Your task to perform on an android device: What's on my calendar today? Image 0: 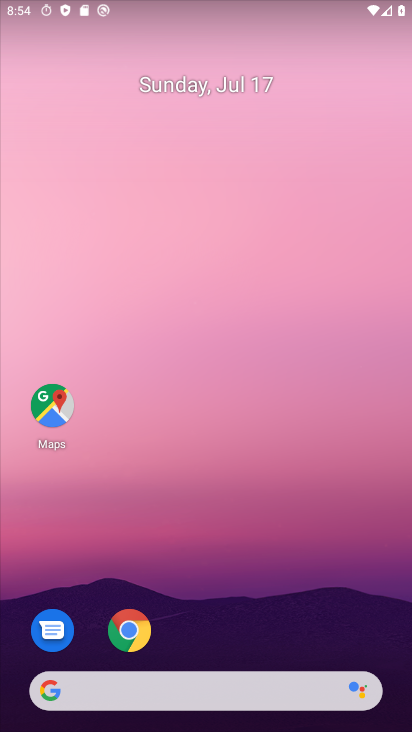
Step 0: drag from (150, 370) to (254, 8)
Your task to perform on an android device: What's on my calendar today? Image 1: 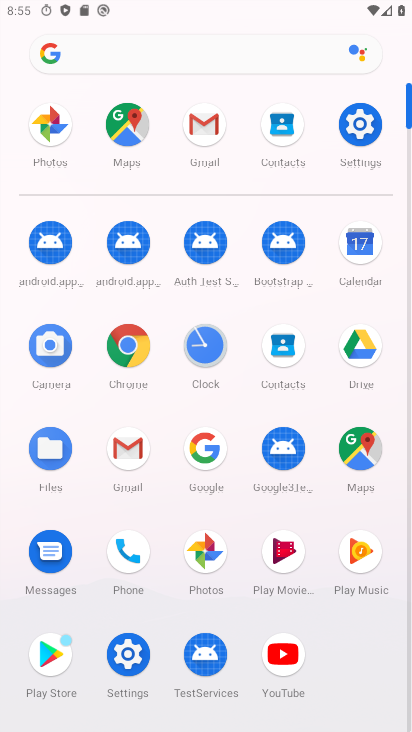
Step 1: click (353, 248)
Your task to perform on an android device: What's on my calendar today? Image 2: 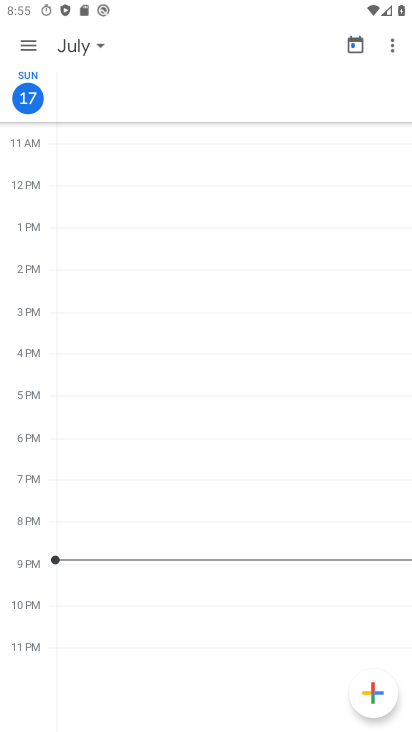
Step 2: click (89, 46)
Your task to perform on an android device: What's on my calendar today? Image 3: 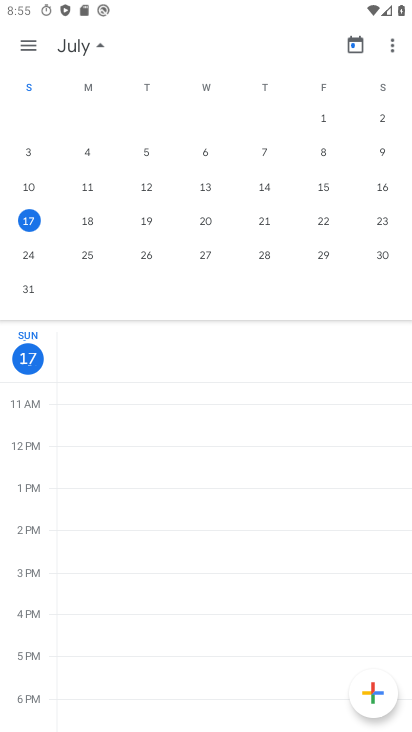
Step 3: task complete